Your task to perform on an android device: search for starred emails in the gmail app Image 0: 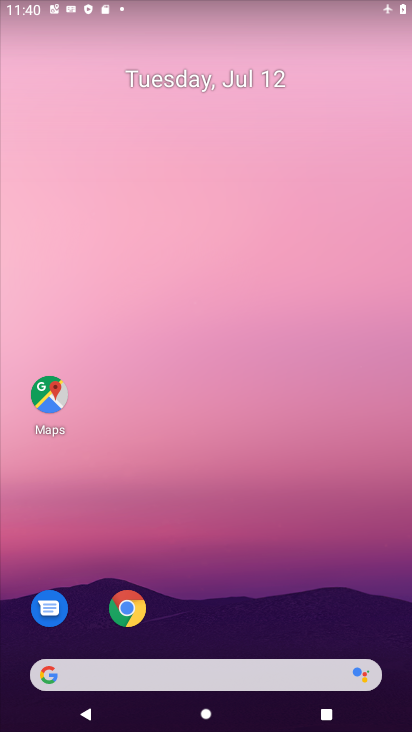
Step 0: drag from (244, 718) to (287, 95)
Your task to perform on an android device: search for starred emails in the gmail app Image 1: 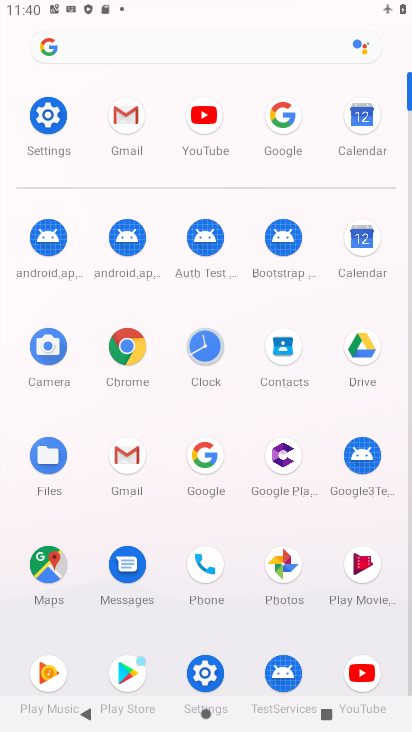
Step 1: click (131, 453)
Your task to perform on an android device: search for starred emails in the gmail app Image 2: 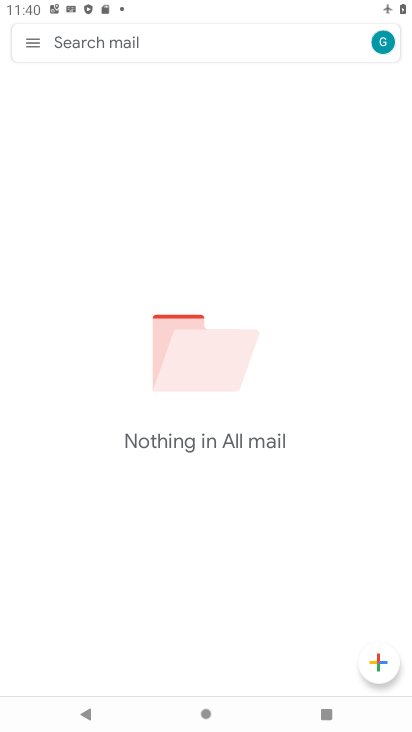
Step 2: click (23, 41)
Your task to perform on an android device: search for starred emails in the gmail app Image 3: 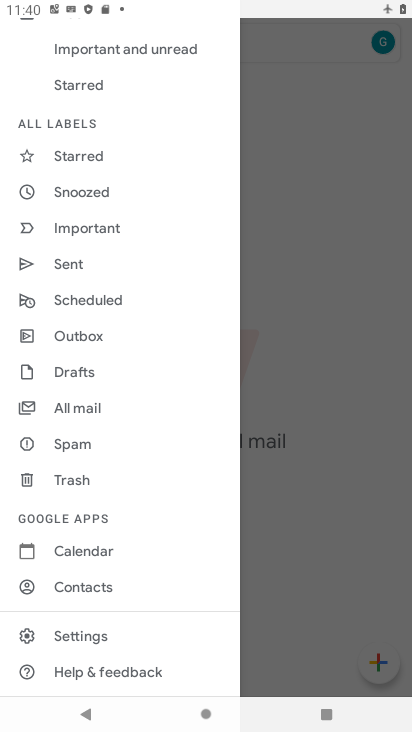
Step 3: click (79, 161)
Your task to perform on an android device: search for starred emails in the gmail app Image 4: 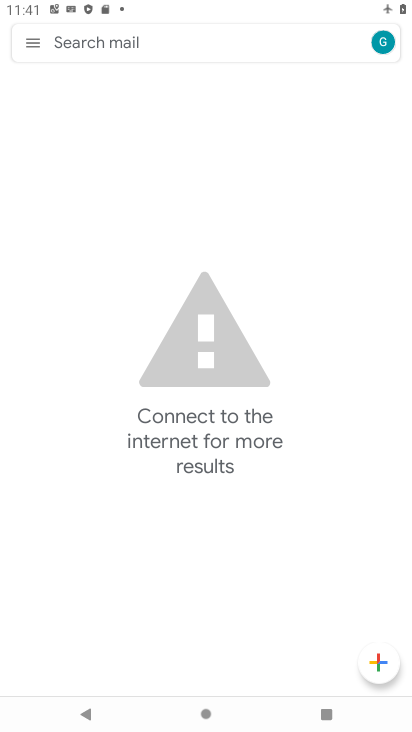
Step 4: task complete